Your task to perform on an android device: Show me productivity apps on the Play Store Image 0: 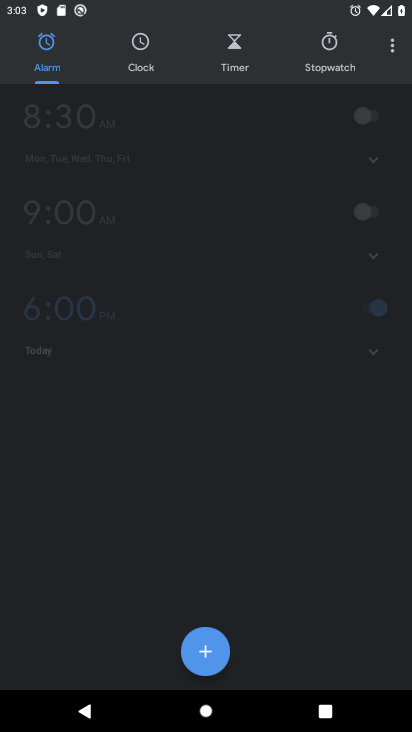
Step 0: press home button
Your task to perform on an android device: Show me productivity apps on the Play Store Image 1: 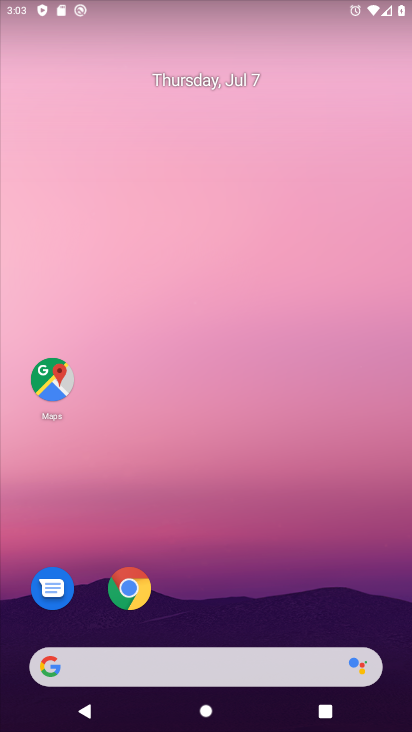
Step 1: drag from (174, 659) to (187, 240)
Your task to perform on an android device: Show me productivity apps on the Play Store Image 2: 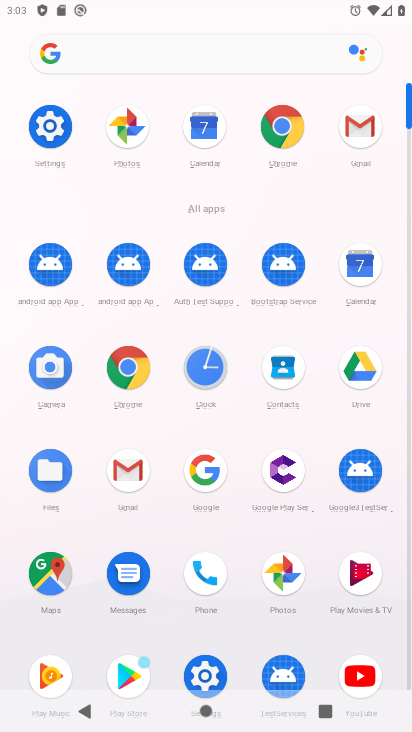
Step 2: click (126, 675)
Your task to perform on an android device: Show me productivity apps on the Play Store Image 3: 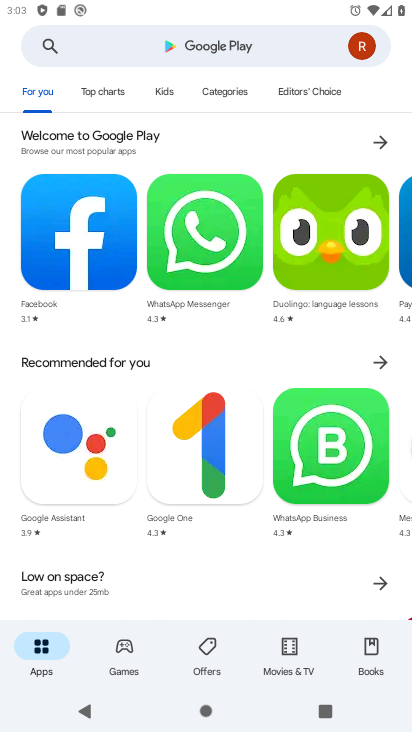
Step 3: click (123, 660)
Your task to perform on an android device: Show me productivity apps on the Play Store Image 4: 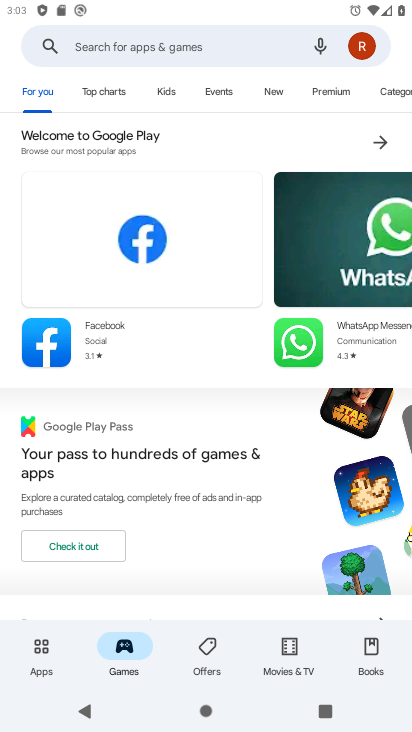
Step 4: click (38, 643)
Your task to perform on an android device: Show me productivity apps on the Play Store Image 5: 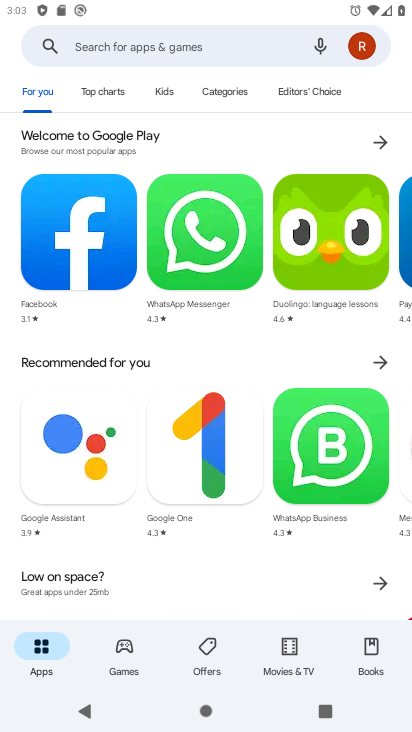
Step 5: task complete